Your task to perform on an android device: Do I have any events today? Image 0: 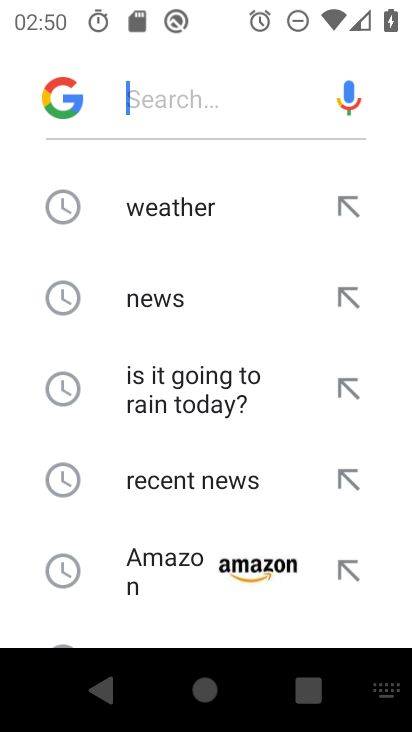
Step 0: press back button
Your task to perform on an android device: Do I have any events today? Image 1: 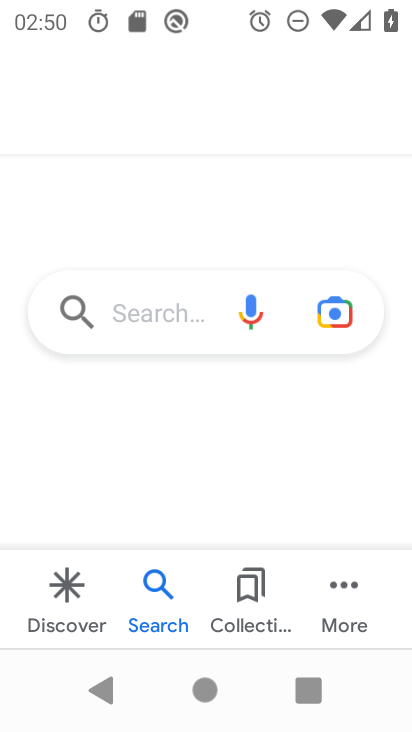
Step 1: press back button
Your task to perform on an android device: Do I have any events today? Image 2: 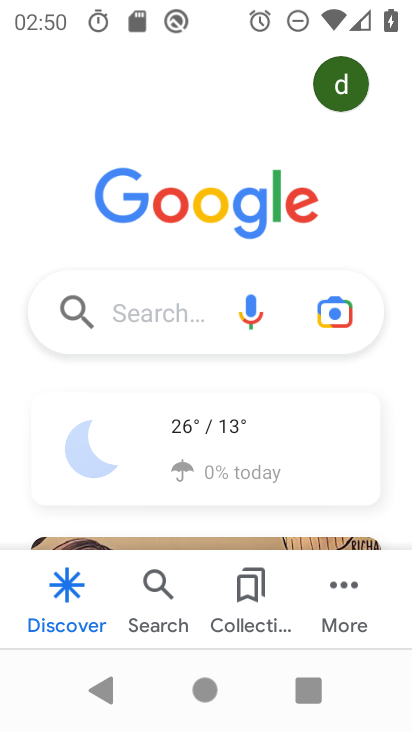
Step 2: press back button
Your task to perform on an android device: Do I have any events today? Image 3: 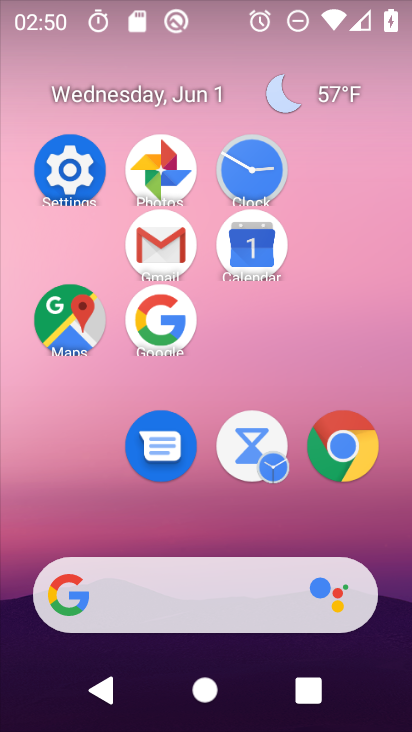
Step 3: click (249, 249)
Your task to perform on an android device: Do I have any events today? Image 4: 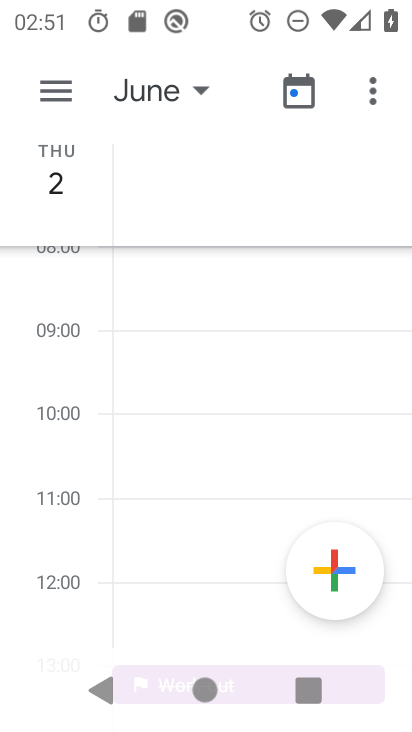
Step 4: click (126, 81)
Your task to perform on an android device: Do I have any events today? Image 5: 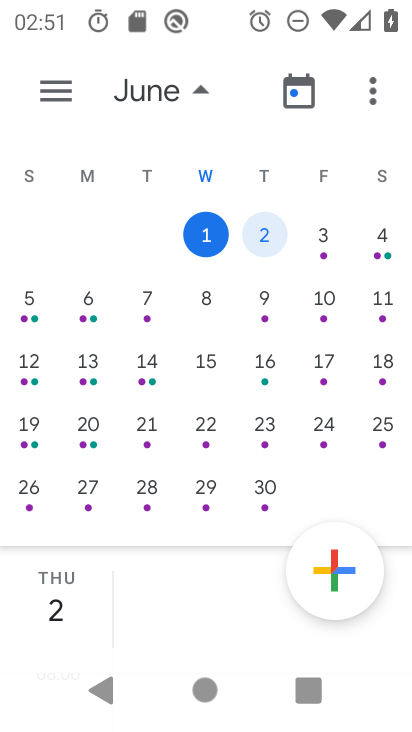
Step 5: click (176, 98)
Your task to perform on an android device: Do I have any events today? Image 6: 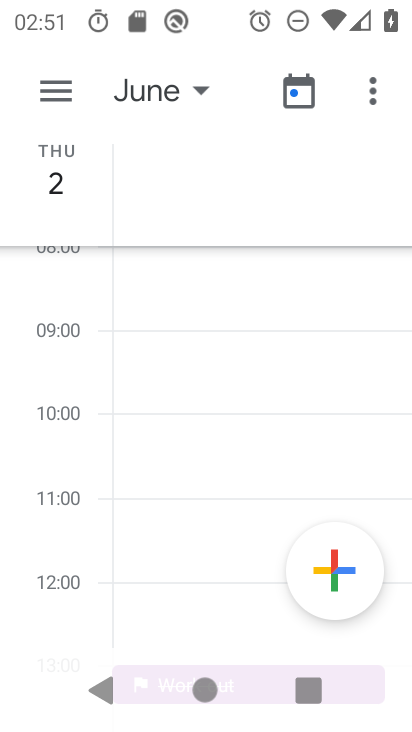
Step 6: click (191, 92)
Your task to perform on an android device: Do I have any events today? Image 7: 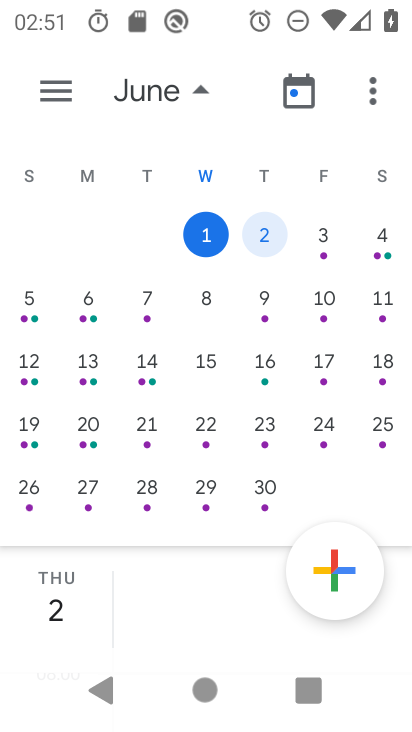
Step 7: click (209, 224)
Your task to perform on an android device: Do I have any events today? Image 8: 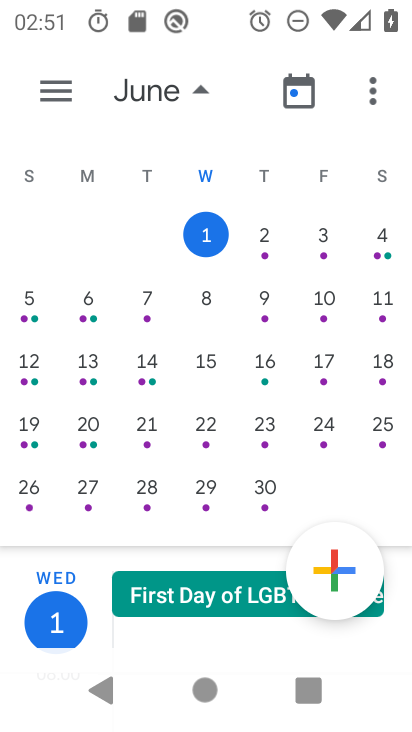
Step 8: click (54, 610)
Your task to perform on an android device: Do I have any events today? Image 9: 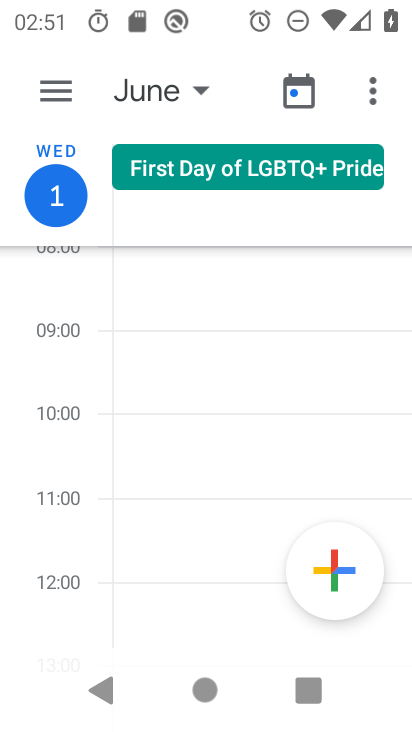
Step 9: task complete